Your task to perform on an android device: Show me the alarms in the clock app Image 0: 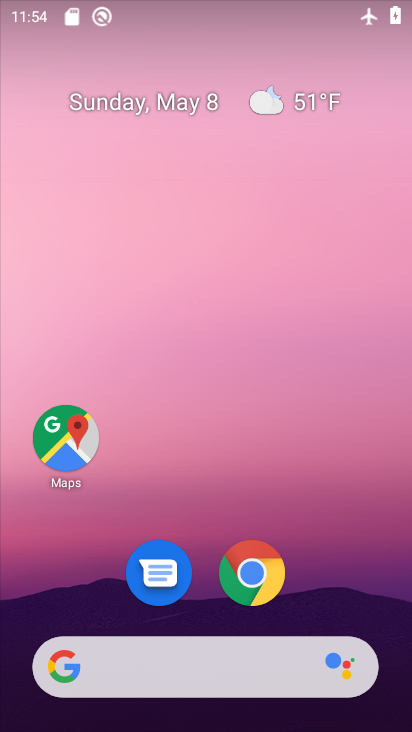
Step 0: drag from (170, 632) to (171, 216)
Your task to perform on an android device: Show me the alarms in the clock app Image 1: 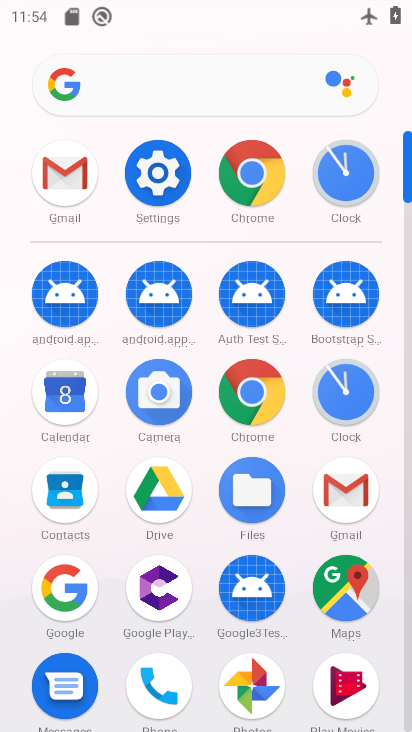
Step 1: click (332, 408)
Your task to perform on an android device: Show me the alarms in the clock app Image 2: 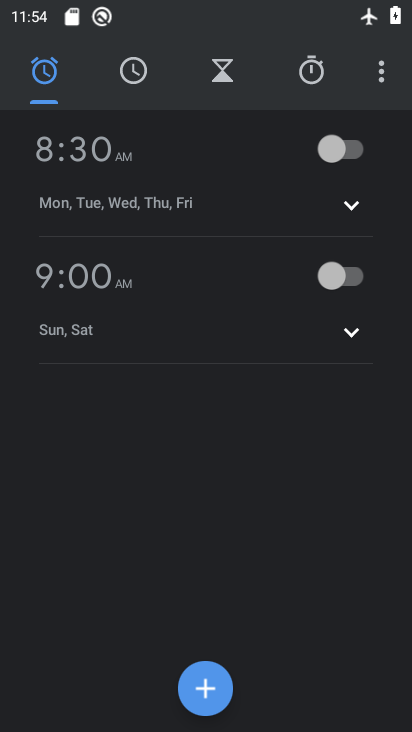
Step 2: task complete